Your task to perform on an android device: find photos in the google photos app Image 0: 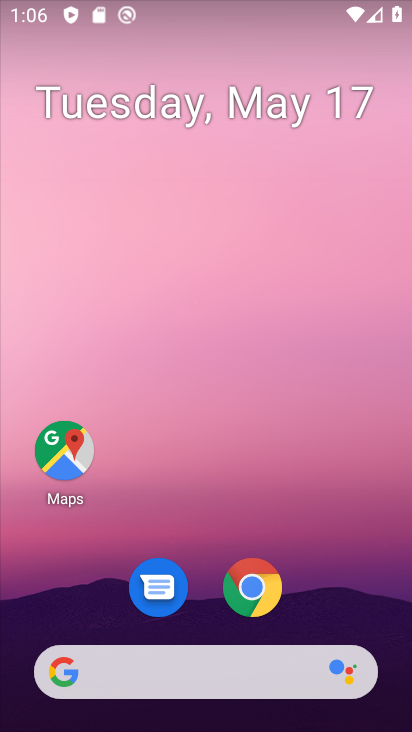
Step 0: drag from (343, 566) to (343, 243)
Your task to perform on an android device: find photos in the google photos app Image 1: 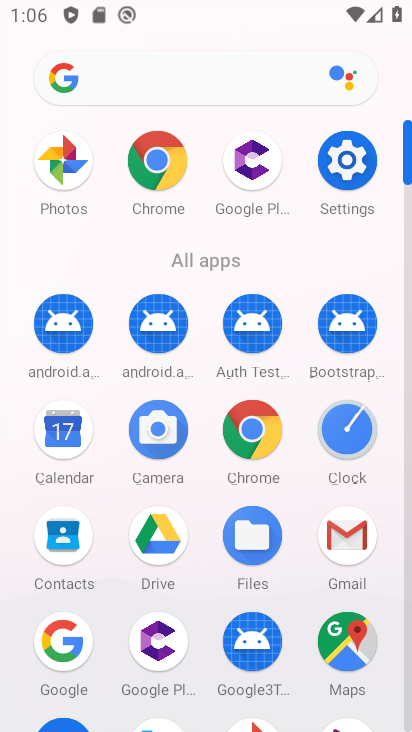
Step 1: drag from (159, 620) to (208, 312)
Your task to perform on an android device: find photos in the google photos app Image 2: 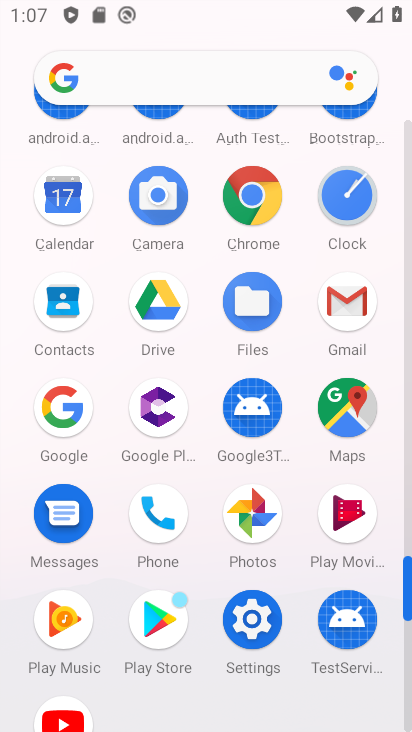
Step 2: click (246, 515)
Your task to perform on an android device: find photos in the google photos app Image 3: 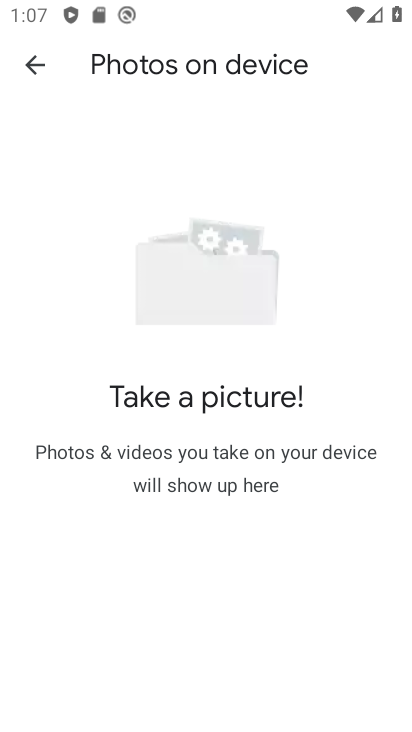
Step 3: click (38, 53)
Your task to perform on an android device: find photos in the google photos app Image 4: 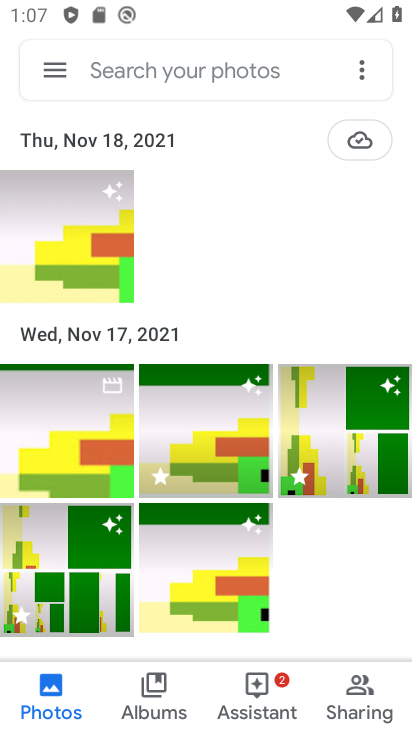
Step 4: task complete